Your task to perform on an android device: Open the map Image 0: 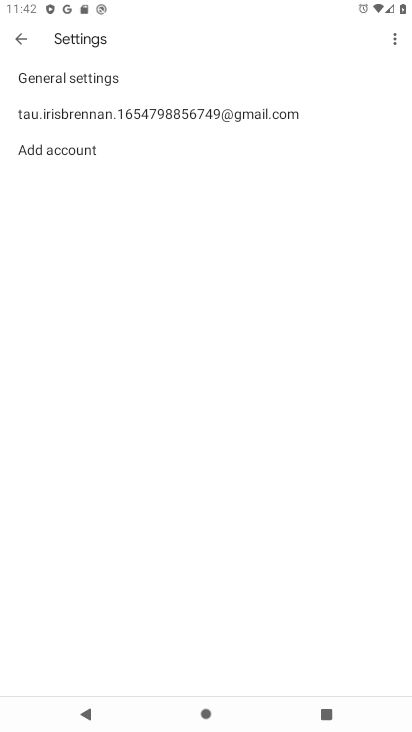
Step 0: press home button
Your task to perform on an android device: Open the map Image 1: 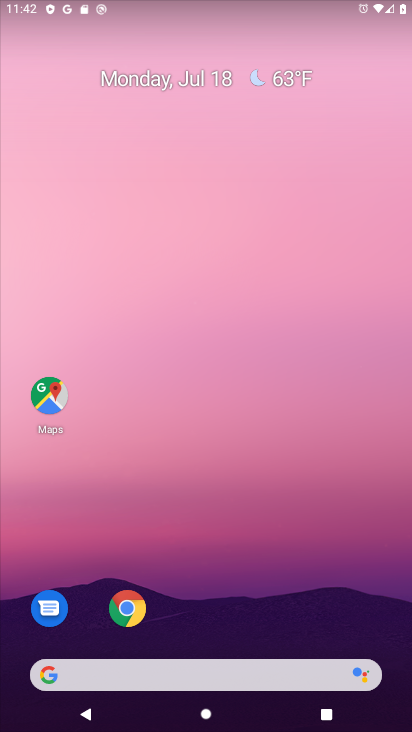
Step 1: click (51, 402)
Your task to perform on an android device: Open the map Image 2: 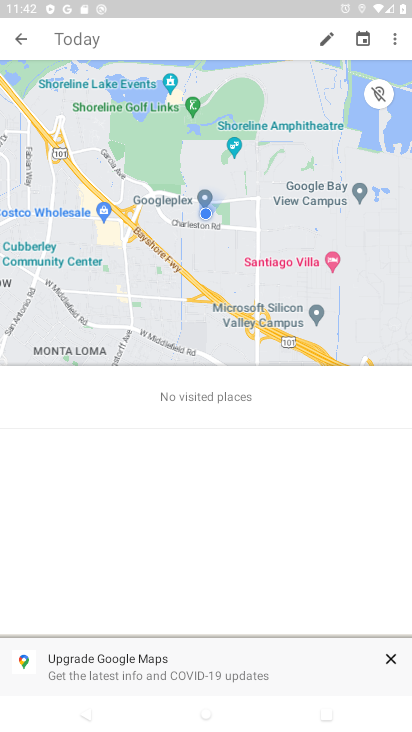
Step 2: task complete